Your task to perform on an android device: Go to location settings Image 0: 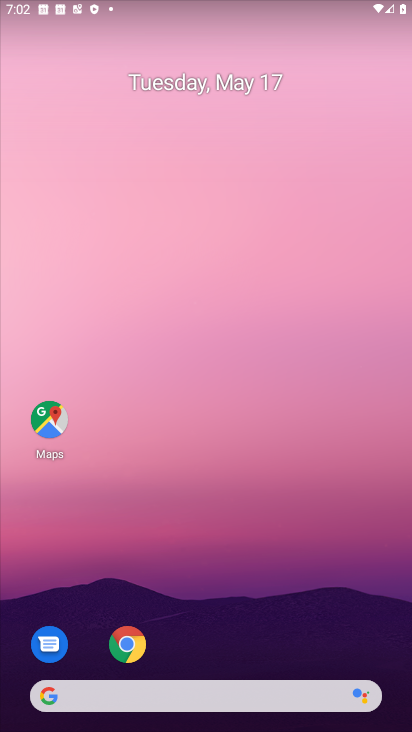
Step 0: drag from (363, 634) to (236, 84)
Your task to perform on an android device: Go to location settings Image 1: 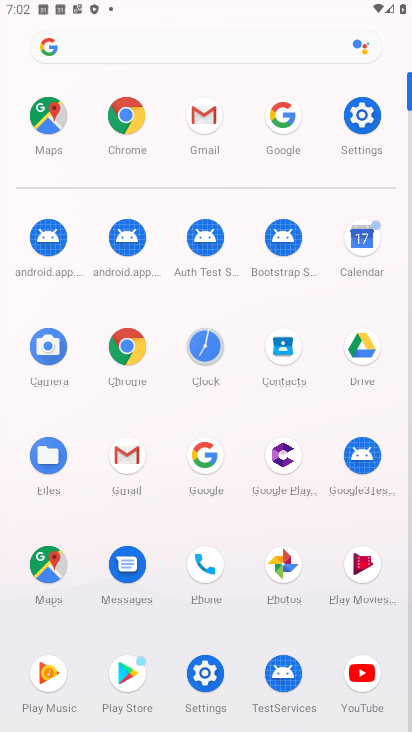
Step 1: click (359, 120)
Your task to perform on an android device: Go to location settings Image 2: 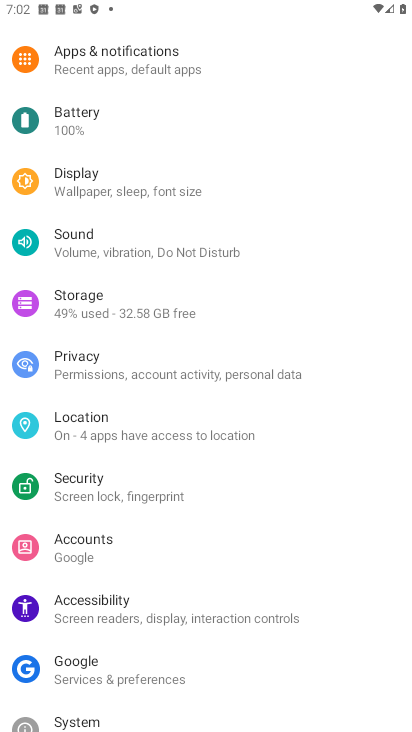
Step 2: click (178, 438)
Your task to perform on an android device: Go to location settings Image 3: 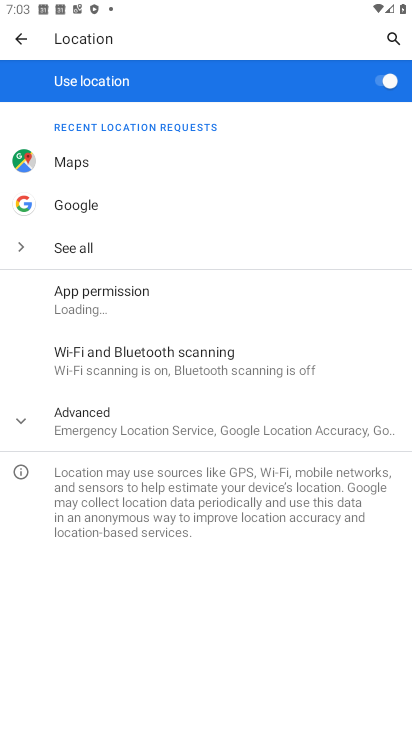
Step 3: task complete